Your task to perform on an android device: Do I have any events this weekend? Image 0: 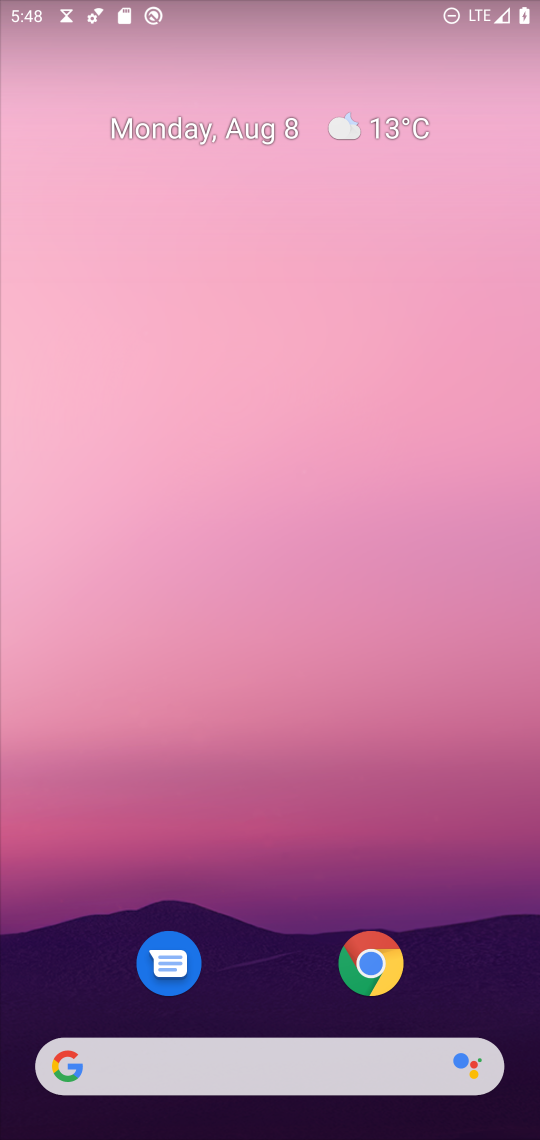
Step 0: drag from (253, 840) to (266, 139)
Your task to perform on an android device: Do I have any events this weekend? Image 1: 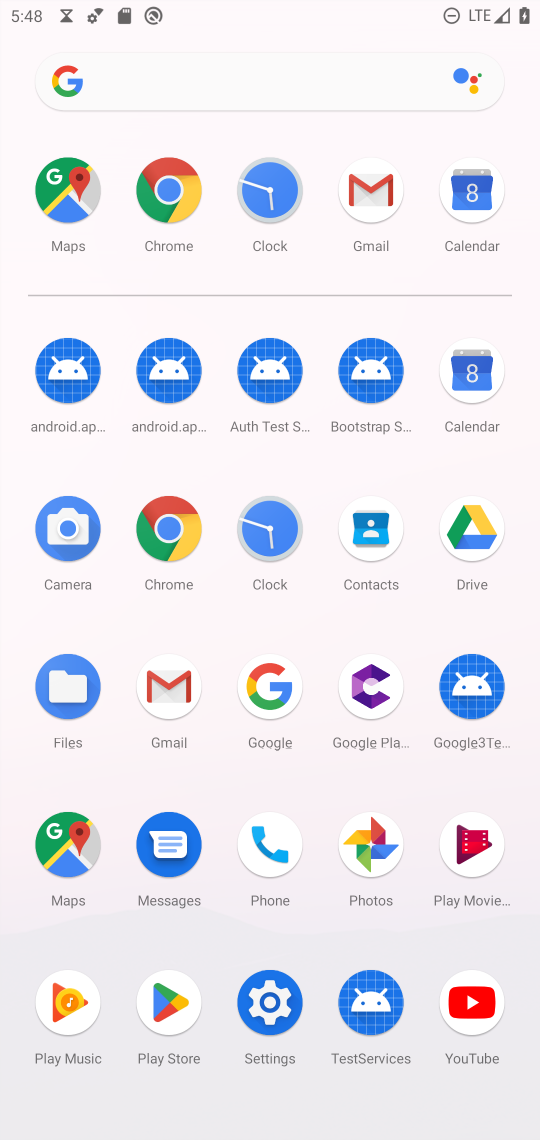
Step 1: click (471, 369)
Your task to perform on an android device: Do I have any events this weekend? Image 2: 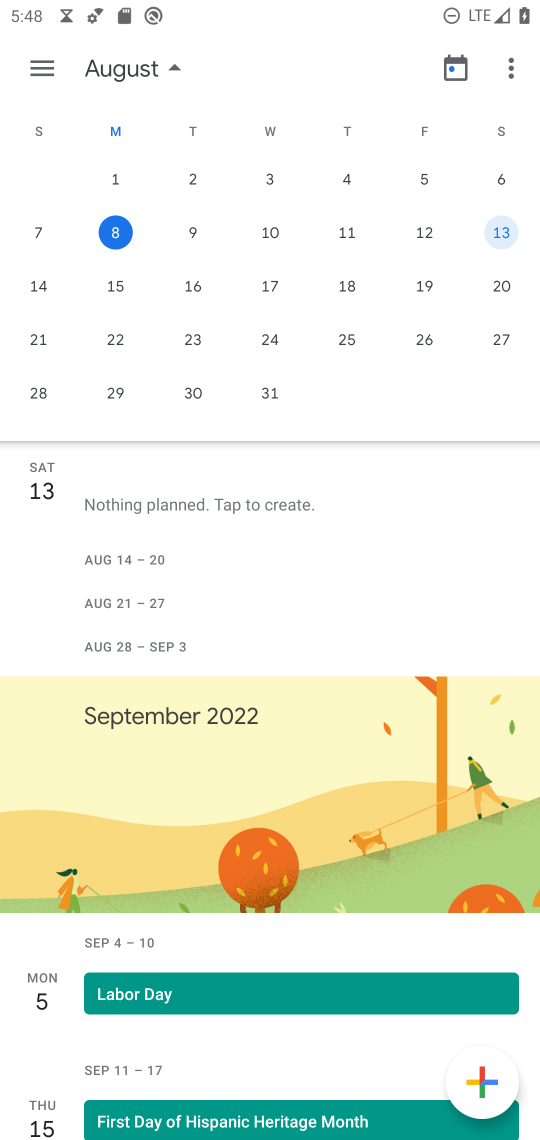
Step 2: click (511, 249)
Your task to perform on an android device: Do I have any events this weekend? Image 3: 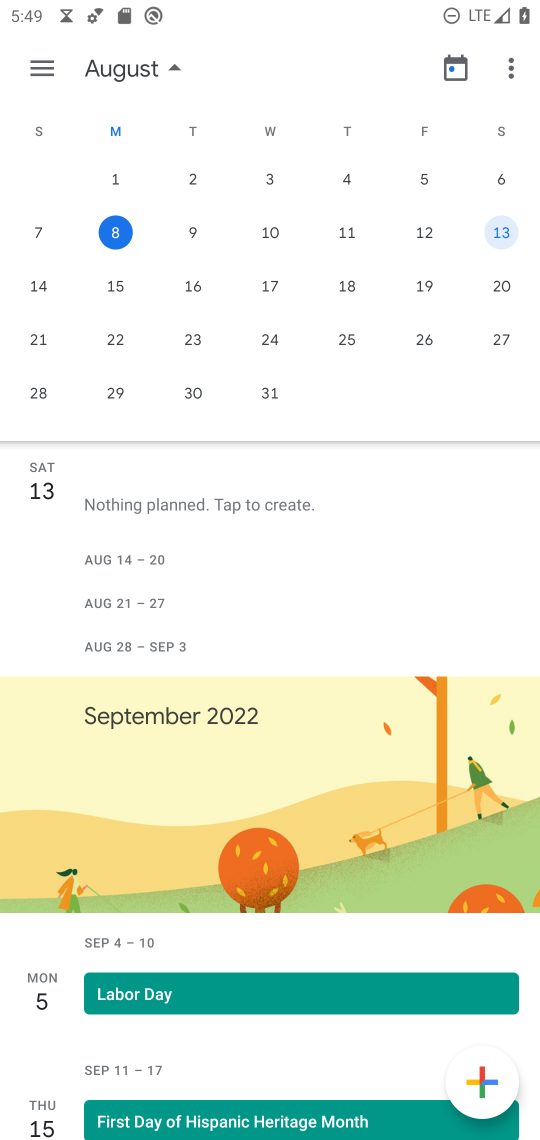
Step 3: task complete